Your task to perform on an android device: turn off priority inbox in the gmail app Image 0: 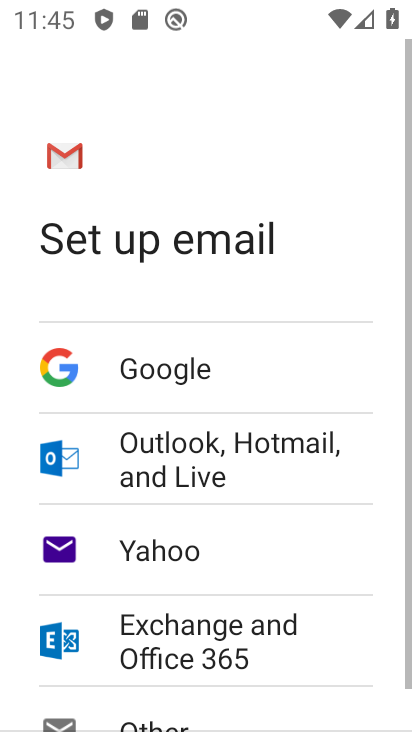
Step 0: press home button
Your task to perform on an android device: turn off priority inbox in the gmail app Image 1: 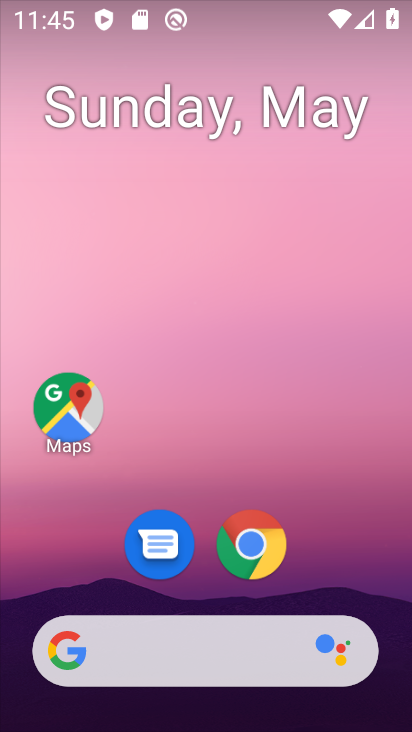
Step 1: drag from (341, 602) to (322, 58)
Your task to perform on an android device: turn off priority inbox in the gmail app Image 2: 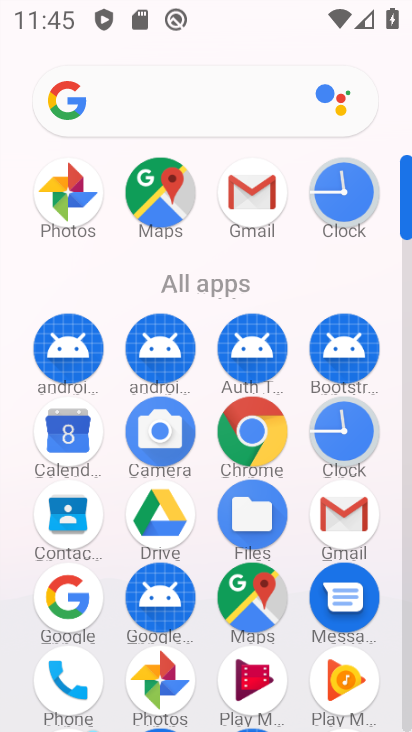
Step 2: click (345, 516)
Your task to perform on an android device: turn off priority inbox in the gmail app Image 3: 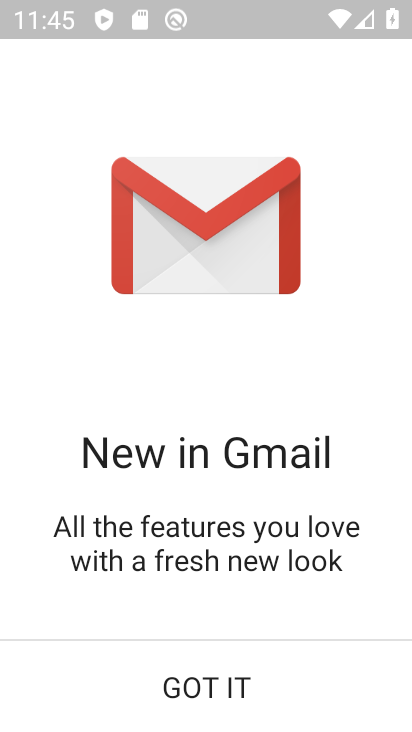
Step 3: click (302, 695)
Your task to perform on an android device: turn off priority inbox in the gmail app Image 4: 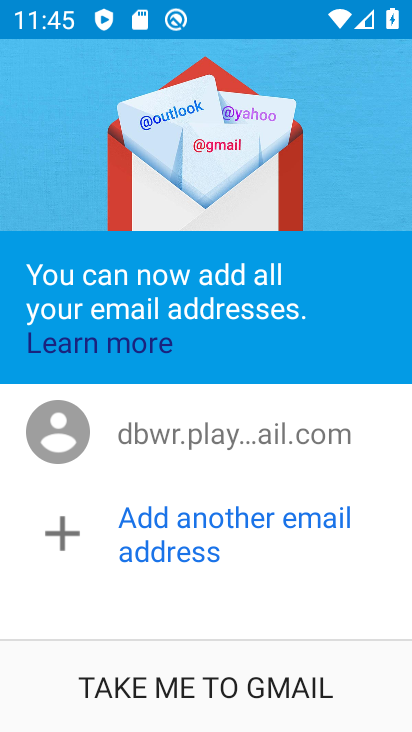
Step 4: click (308, 692)
Your task to perform on an android device: turn off priority inbox in the gmail app Image 5: 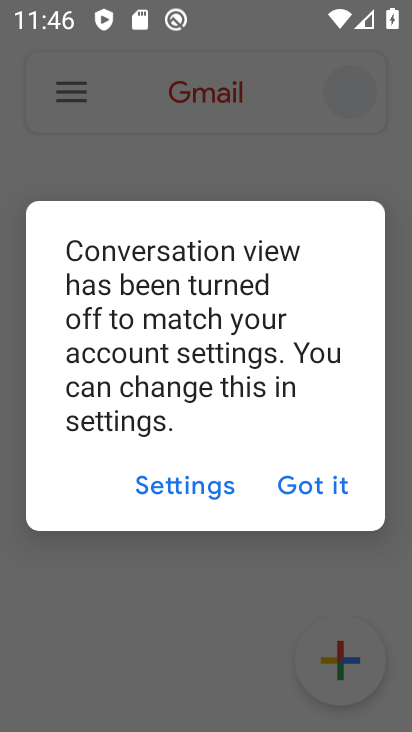
Step 5: click (298, 490)
Your task to perform on an android device: turn off priority inbox in the gmail app Image 6: 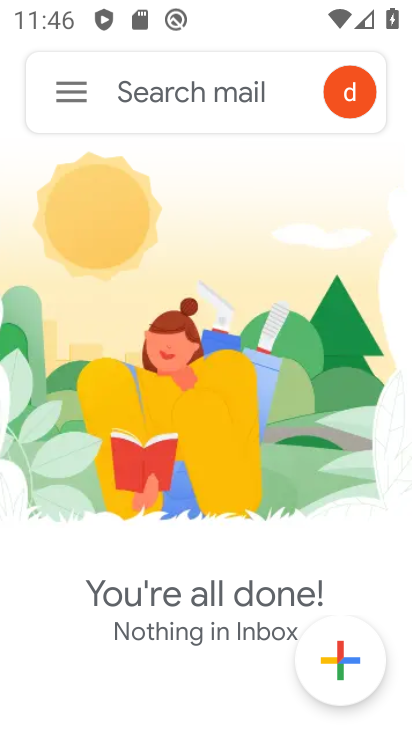
Step 6: click (77, 82)
Your task to perform on an android device: turn off priority inbox in the gmail app Image 7: 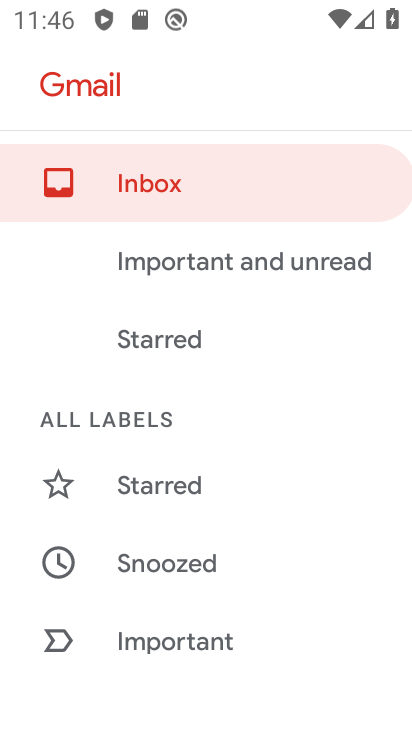
Step 7: drag from (236, 622) to (275, 103)
Your task to perform on an android device: turn off priority inbox in the gmail app Image 8: 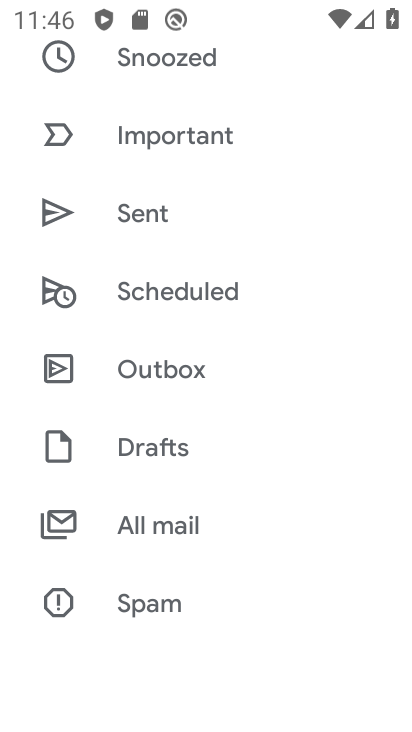
Step 8: drag from (226, 641) to (251, 289)
Your task to perform on an android device: turn off priority inbox in the gmail app Image 9: 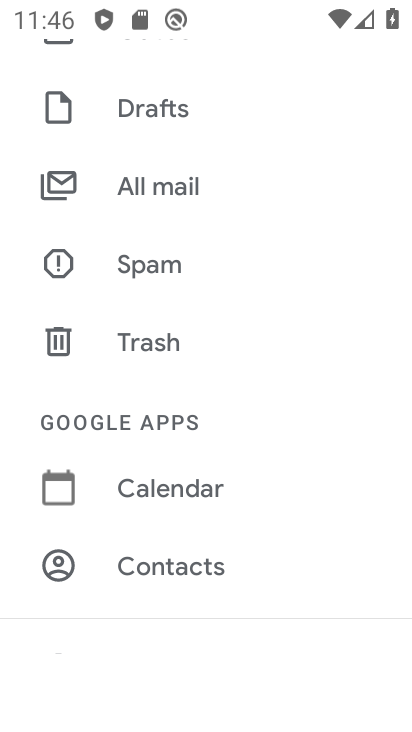
Step 9: drag from (226, 606) to (243, 330)
Your task to perform on an android device: turn off priority inbox in the gmail app Image 10: 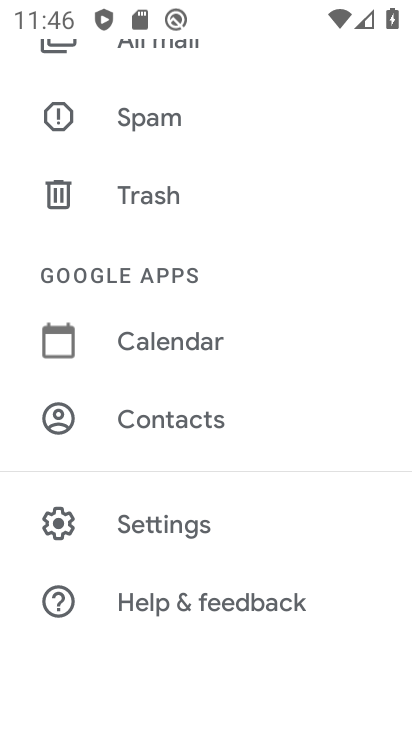
Step 10: click (216, 531)
Your task to perform on an android device: turn off priority inbox in the gmail app Image 11: 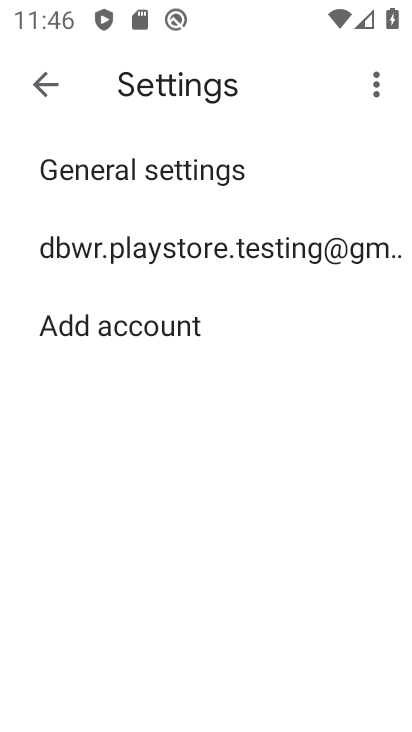
Step 11: click (167, 255)
Your task to perform on an android device: turn off priority inbox in the gmail app Image 12: 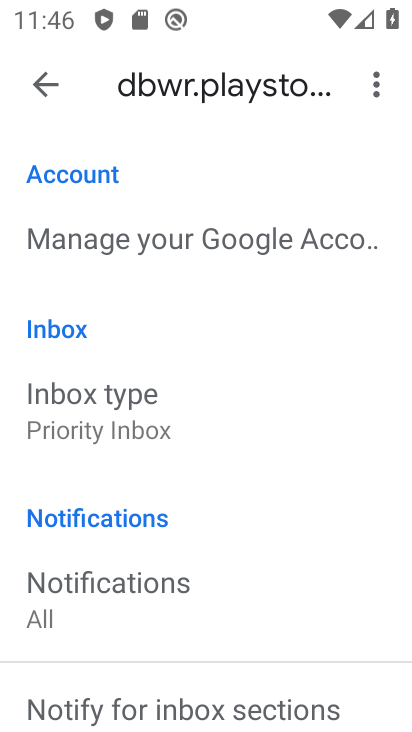
Step 12: click (159, 429)
Your task to perform on an android device: turn off priority inbox in the gmail app Image 13: 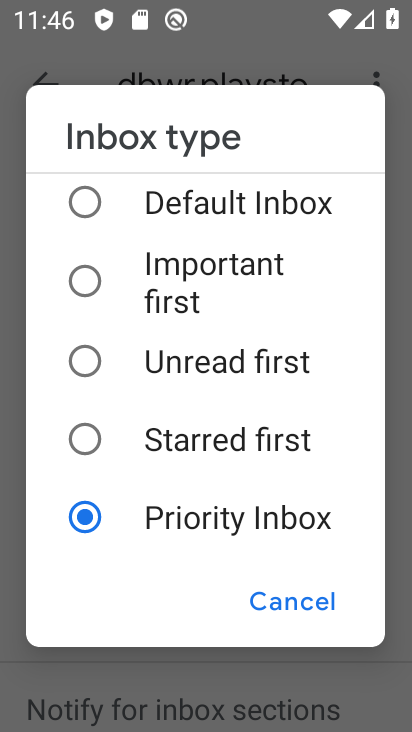
Step 13: click (91, 205)
Your task to perform on an android device: turn off priority inbox in the gmail app Image 14: 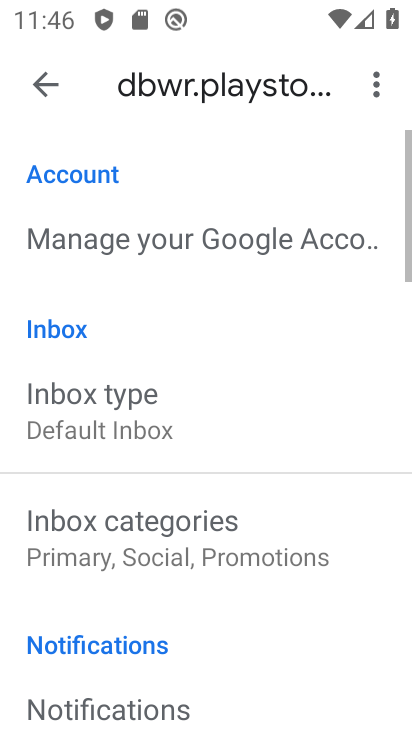
Step 14: task complete